Your task to perform on an android device: Search for vegetarian restaurants on Maps Image 0: 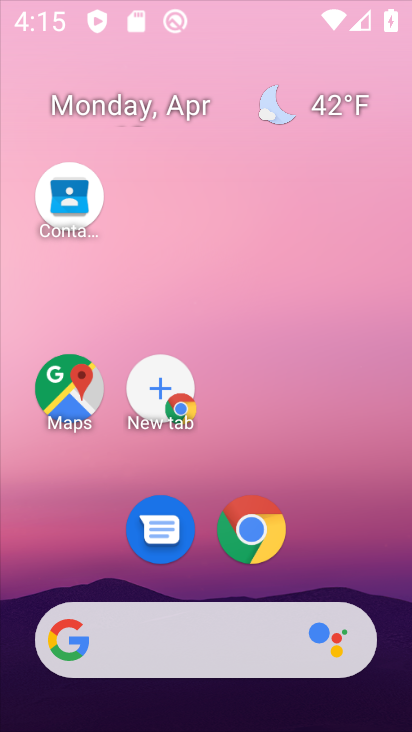
Step 0: click (232, 5)
Your task to perform on an android device: Search for vegetarian restaurants on Maps Image 1: 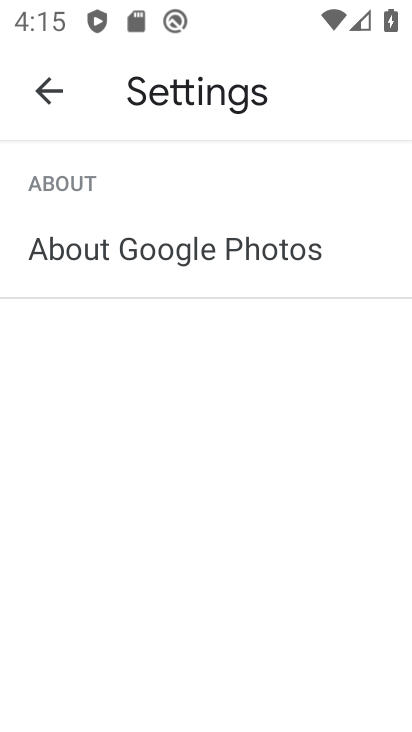
Step 1: click (30, 88)
Your task to perform on an android device: Search for vegetarian restaurants on Maps Image 2: 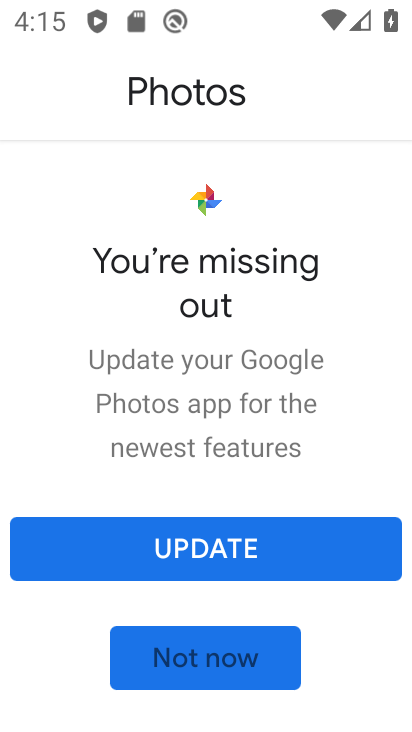
Step 2: press home button
Your task to perform on an android device: Search for vegetarian restaurants on Maps Image 3: 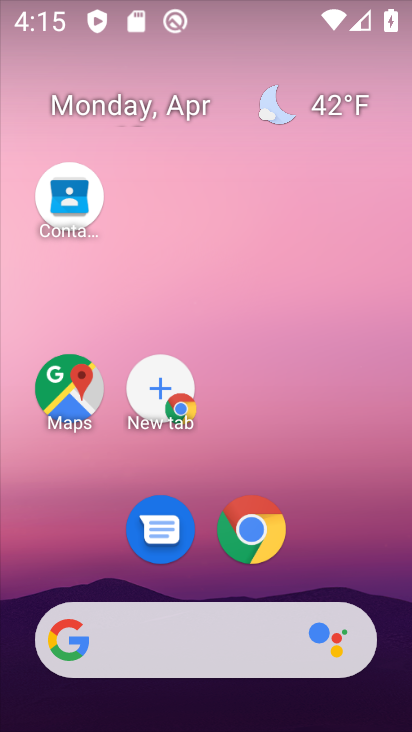
Step 3: click (56, 383)
Your task to perform on an android device: Search for vegetarian restaurants on Maps Image 4: 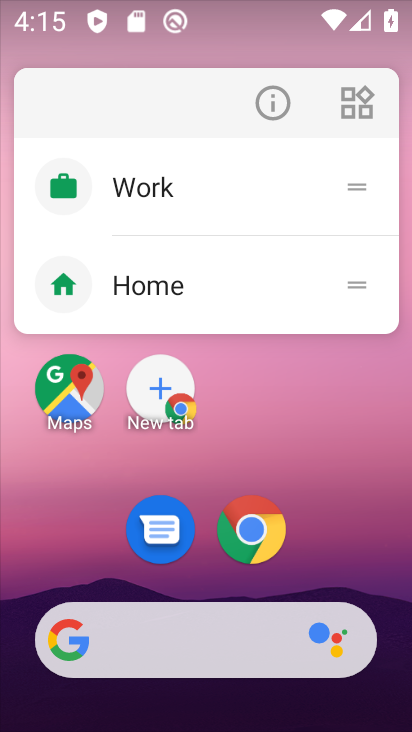
Step 4: click (56, 383)
Your task to perform on an android device: Search for vegetarian restaurants on Maps Image 5: 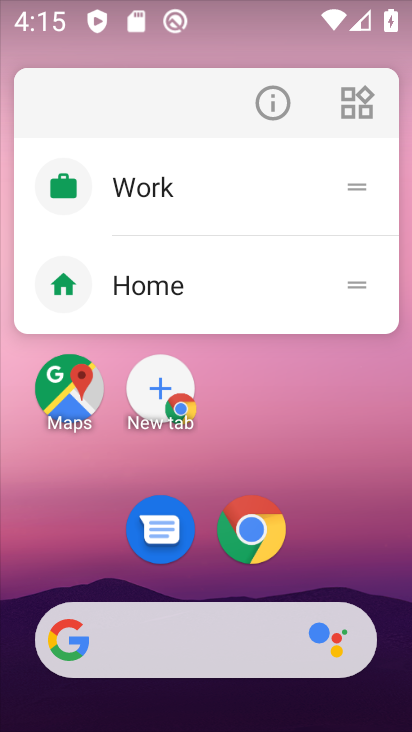
Step 5: click (56, 383)
Your task to perform on an android device: Search for vegetarian restaurants on Maps Image 6: 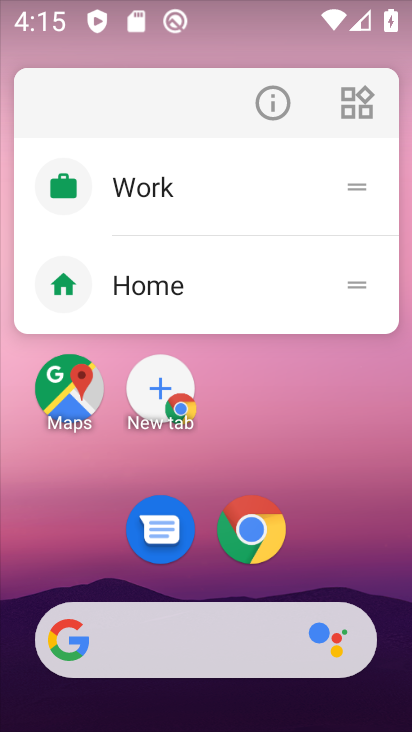
Step 6: click (71, 395)
Your task to perform on an android device: Search for vegetarian restaurants on Maps Image 7: 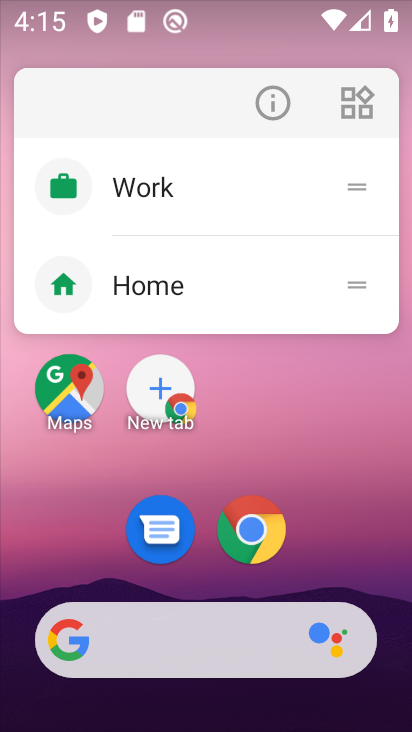
Step 7: click (71, 391)
Your task to perform on an android device: Search for vegetarian restaurants on Maps Image 8: 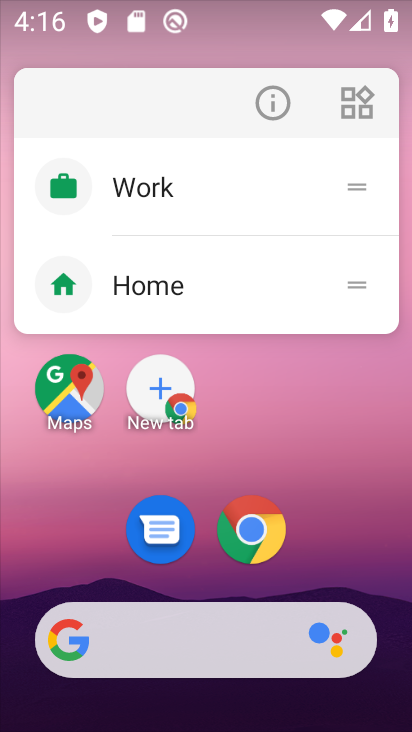
Step 8: click (72, 387)
Your task to perform on an android device: Search for vegetarian restaurants on Maps Image 9: 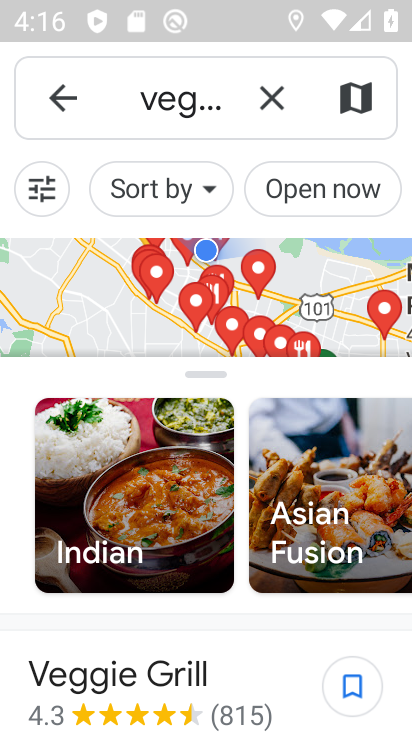
Step 9: task complete